Your task to perform on an android device: Open display settings Image 0: 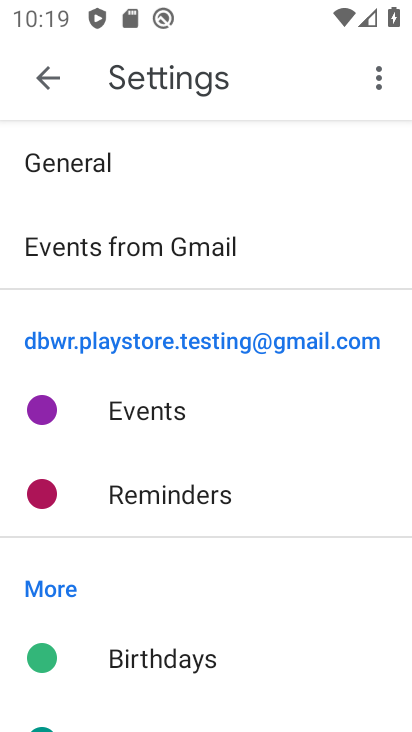
Step 0: press home button
Your task to perform on an android device: Open display settings Image 1: 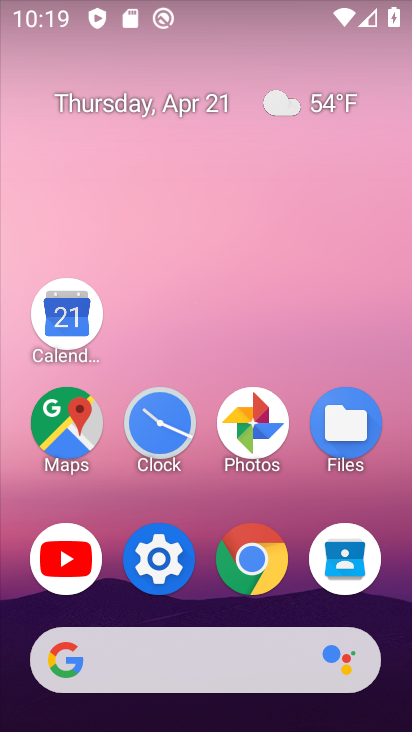
Step 1: click (149, 555)
Your task to perform on an android device: Open display settings Image 2: 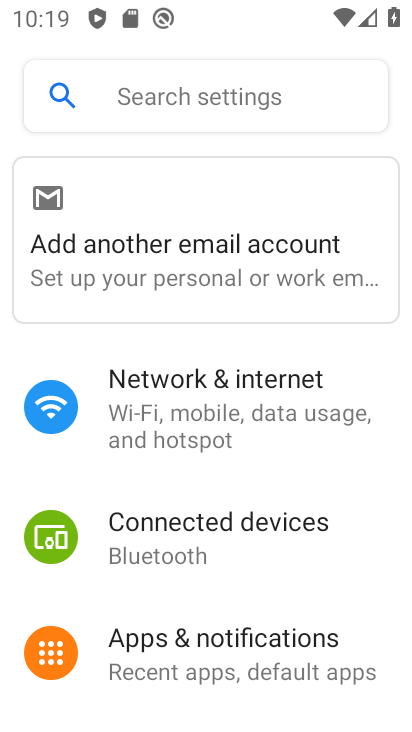
Step 2: drag from (202, 573) to (244, 166)
Your task to perform on an android device: Open display settings Image 3: 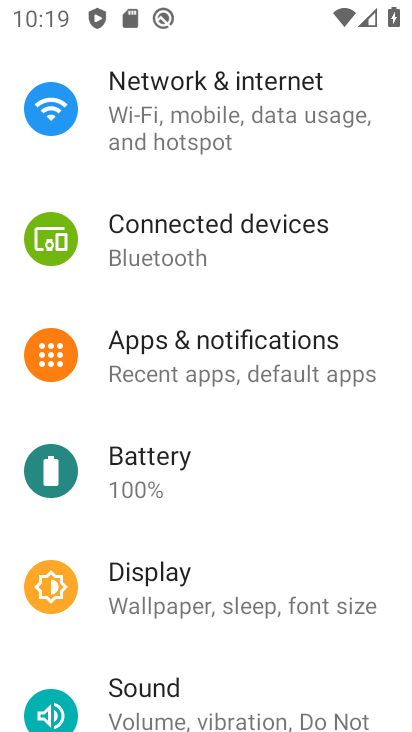
Step 3: drag from (249, 539) to (163, 19)
Your task to perform on an android device: Open display settings Image 4: 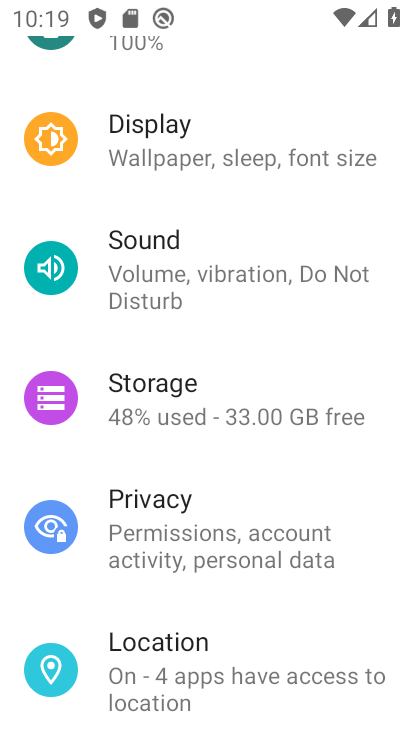
Step 4: click (144, 115)
Your task to perform on an android device: Open display settings Image 5: 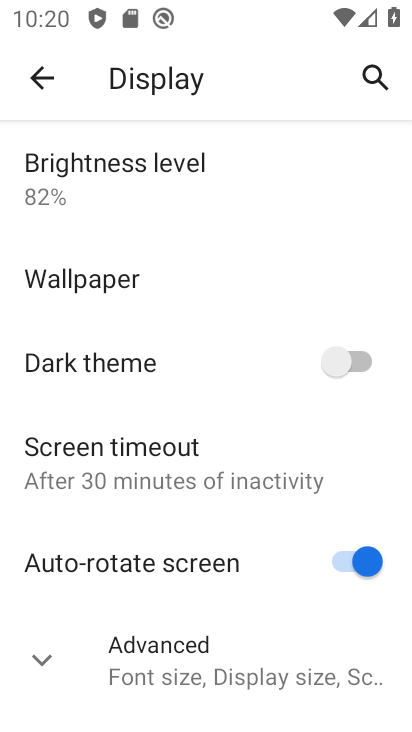
Step 5: task complete